Your task to perform on an android device: turn smart compose on in the gmail app Image 0: 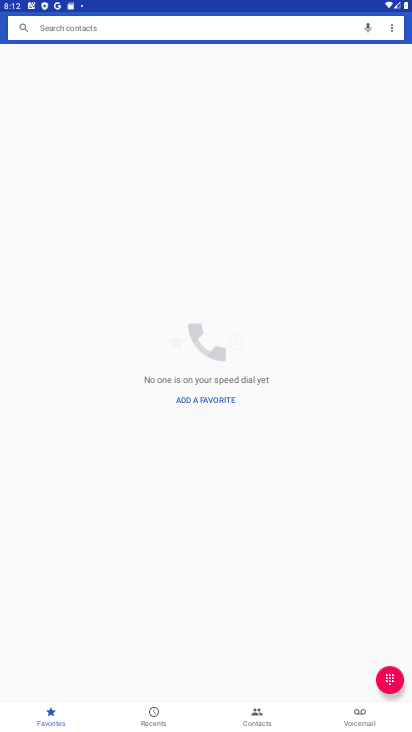
Step 0: press home button
Your task to perform on an android device: turn smart compose on in the gmail app Image 1: 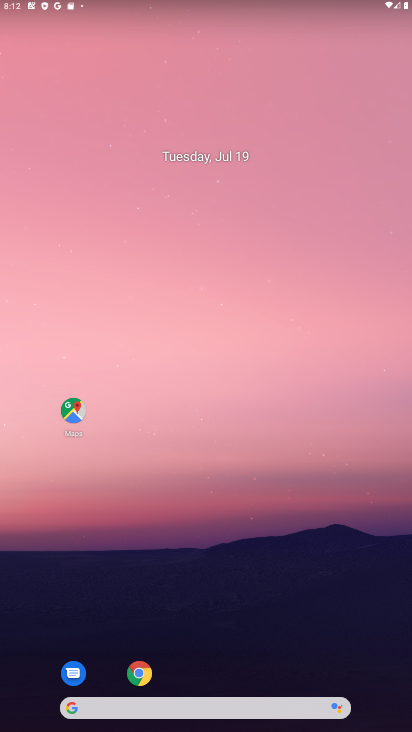
Step 1: task complete